Your task to perform on an android device: Set the phone to "Do not disturb". Image 0: 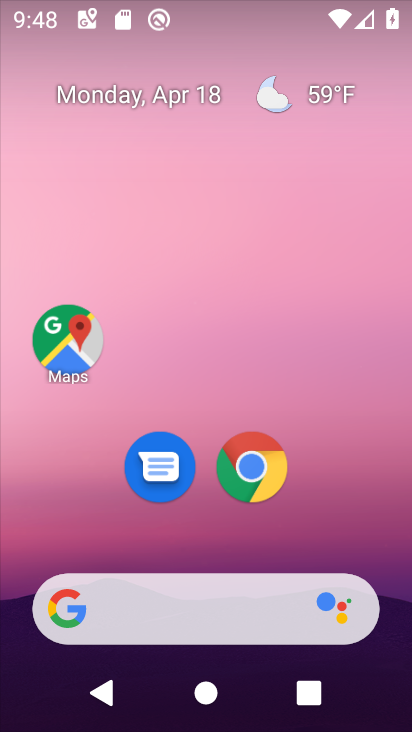
Step 0: drag from (194, 11) to (183, 451)
Your task to perform on an android device: Set the phone to "Do not disturb". Image 1: 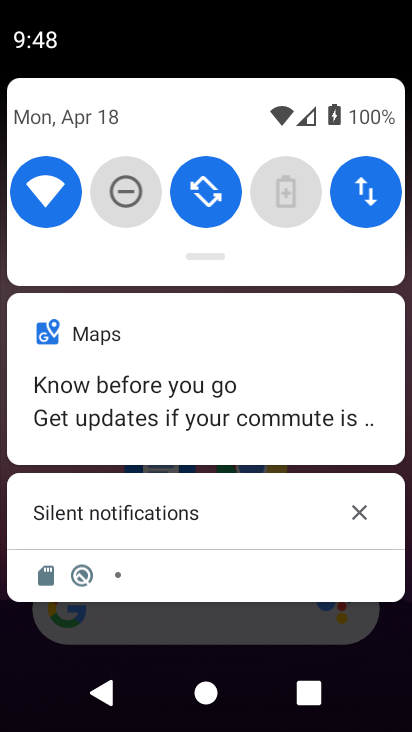
Step 1: click (129, 192)
Your task to perform on an android device: Set the phone to "Do not disturb". Image 2: 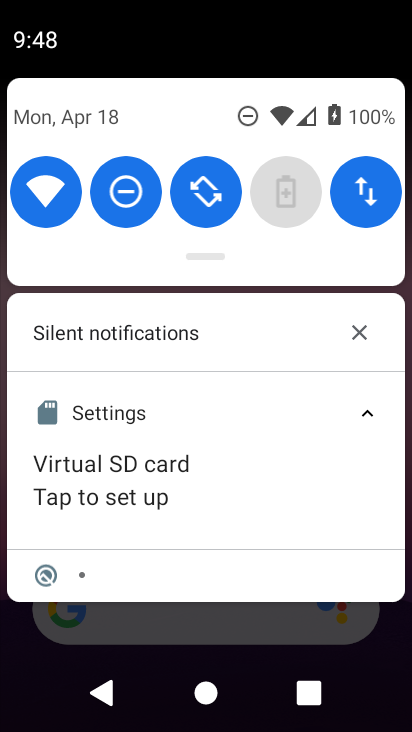
Step 2: task complete